Your task to perform on an android device: Show me the alarms in the clock app Image 0: 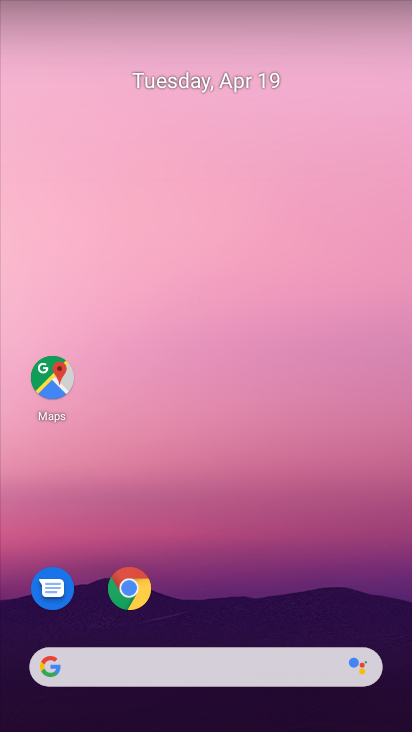
Step 0: press home button
Your task to perform on an android device: Show me the alarms in the clock app Image 1: 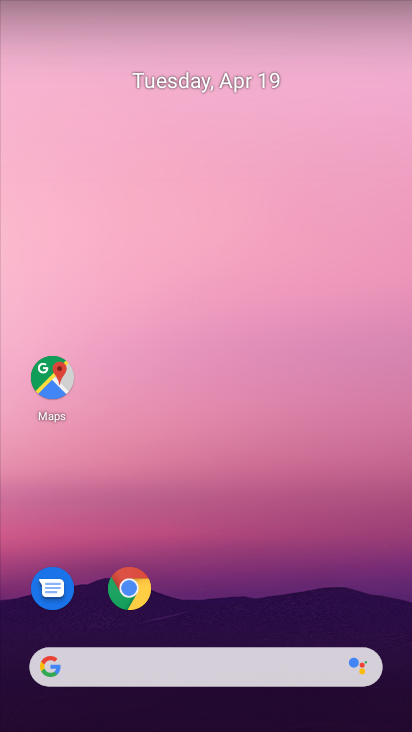
Step 1: drag from (249, 514) to (266, 34)
Your task to perform on an android device: Show me the alarms in the clock app Image 2: 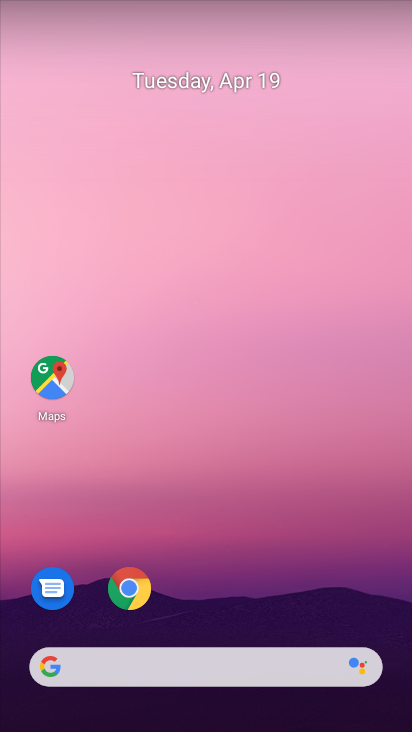
Step 2: drag from (214, 450) to (231, 52)
Your task to perform on an android device: Show me the alarms in the clock app Image 3: 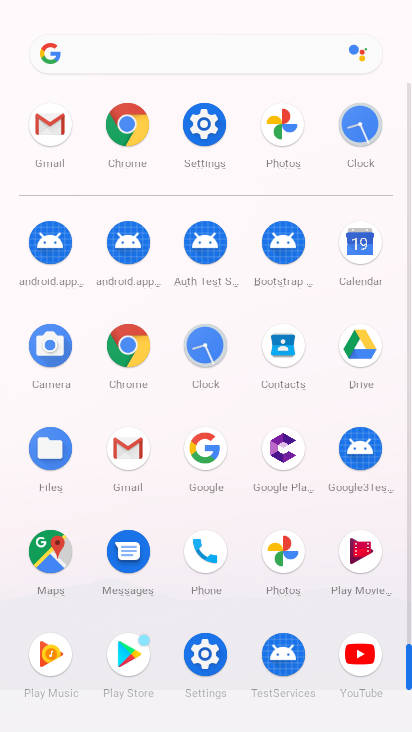
Step 3: click (359, 119)
Your task to perform on an android device: Show me the alarms in the clock app Image 4: 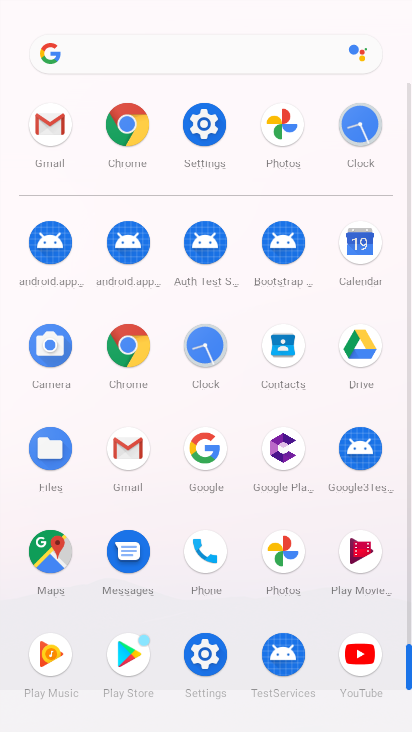
Step 4: click (356, 120)
Your task to perform on an android device: Show me the alarms in the clock app Image 5: 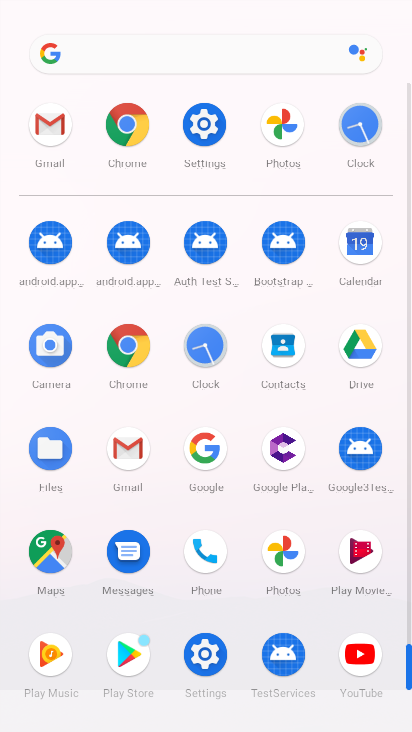
Step 5: click (360, 125)
Your task to perform on an android device: Show me the alarms in the clock app Image 6: 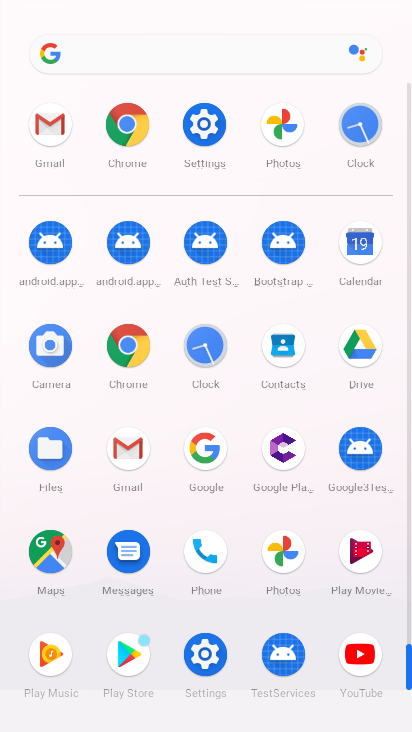
Step 6: click (358, 125)
Your task to perform on an android device: Show me the alarms in the clock app Image 7: 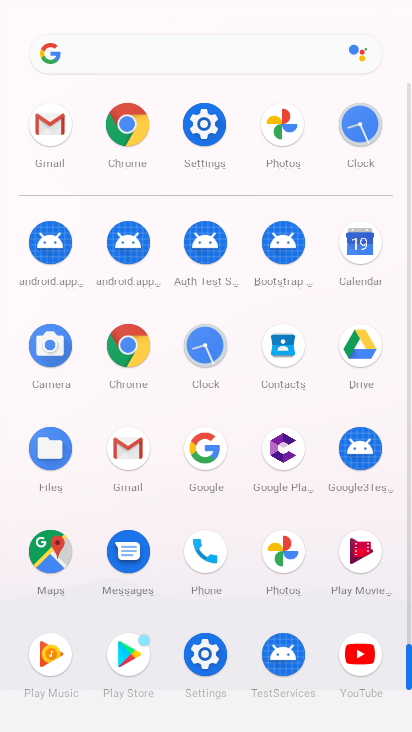
Step 7: click (199, 335)
Your task to perform on an android device: Show me the alarms in the clock app Image 8: 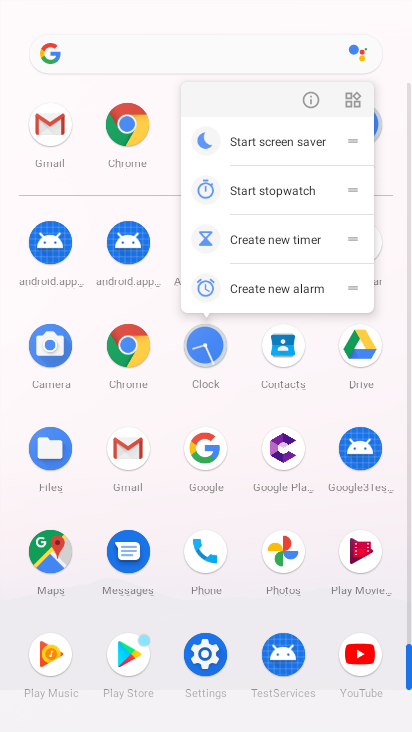
Step 8: click (205, 343)
Your task to perform on an android device: Show me the alarms in the clock app Image 9: 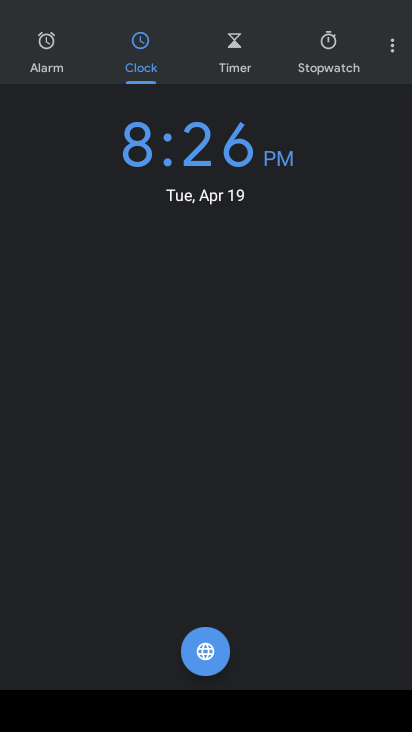
Step 9: click (51, 39)
Your task to perform on an android device: Show me the alarms in the clock app Image 10: 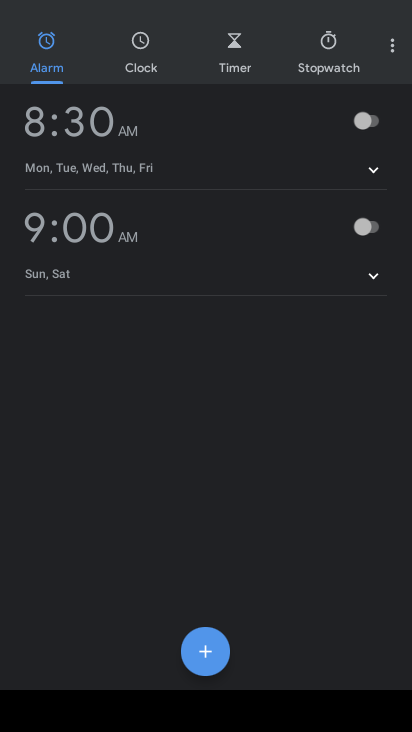
Step 10: click (99, 116)
Your task to perform on an android device: Show me the alarms in the clock app Image 11: 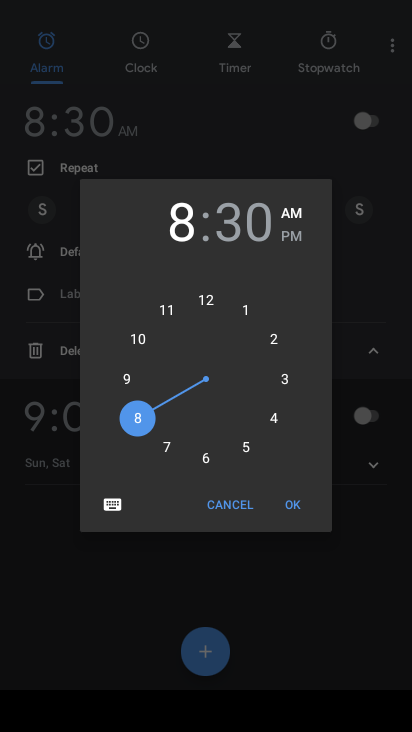
Step 11: click (288, 507)
Your task to perform on an android device: Show me the alarms in the clock app Image 12: 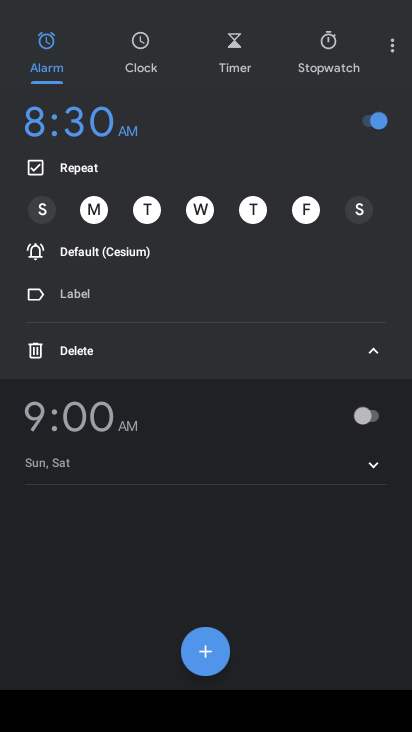
Step 12: task complete